Your task to perform on an android device: check storage Image 0: 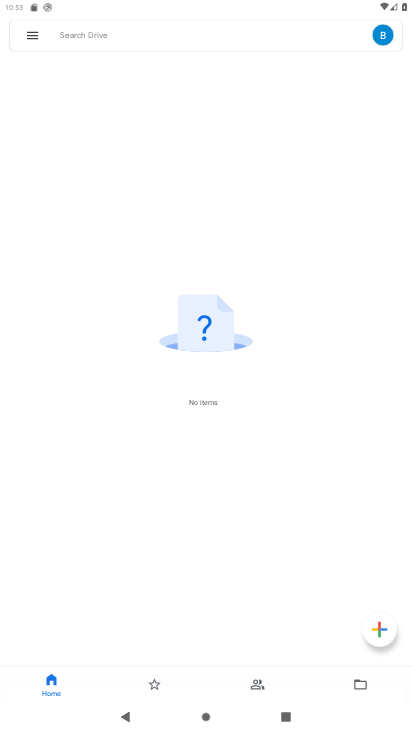
Step 0: press home button
Your task to perform on an android device: check storage Image 1: 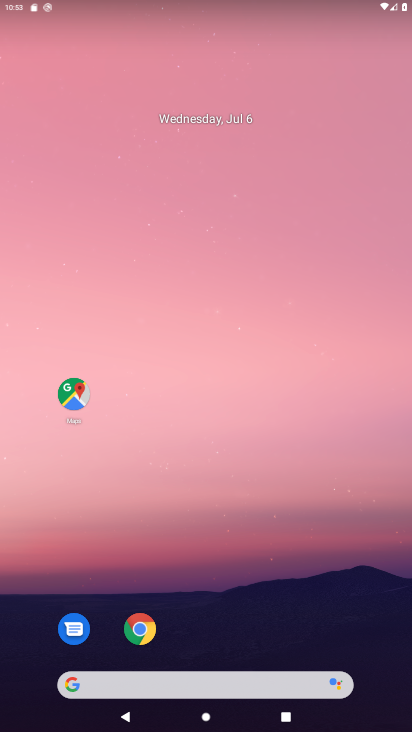
Step 1: drag from (205, 653) to (234, 95)
Your task to perform on an android device: check storage Image 2: 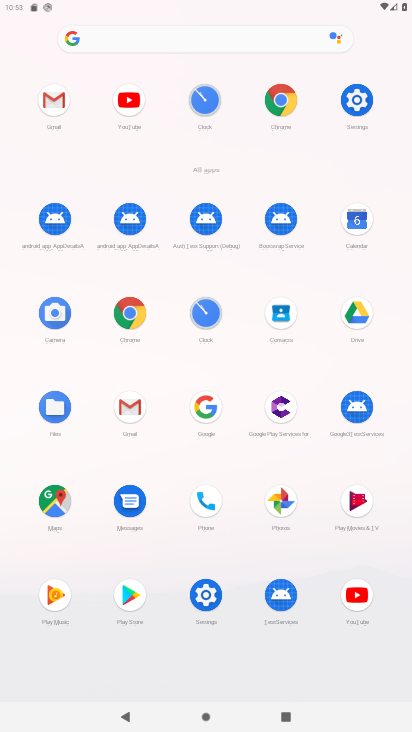
Step 2: click (355, 94)
Your task to perform on an android device: check storage Image 3: 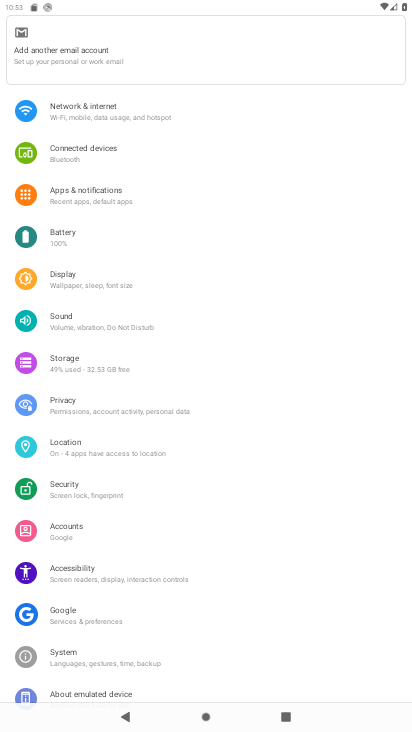
Step 3: click (87, 357)
Your task to perform on an android device: check storage Image 4: 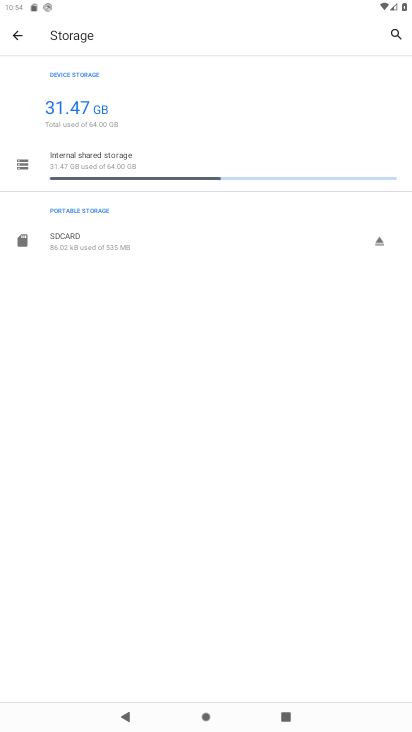
Step 4: task complete